Your task to perform on an android device: turn off wifi Image 0: 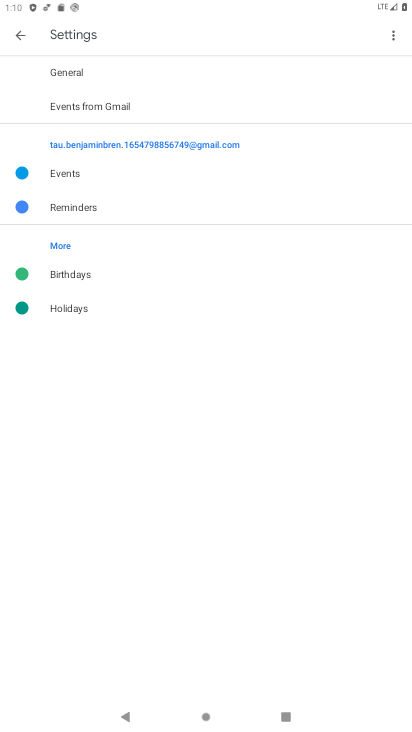
Step 0: press home button
Your task to perform on an android device: turn off wifi Image 1: 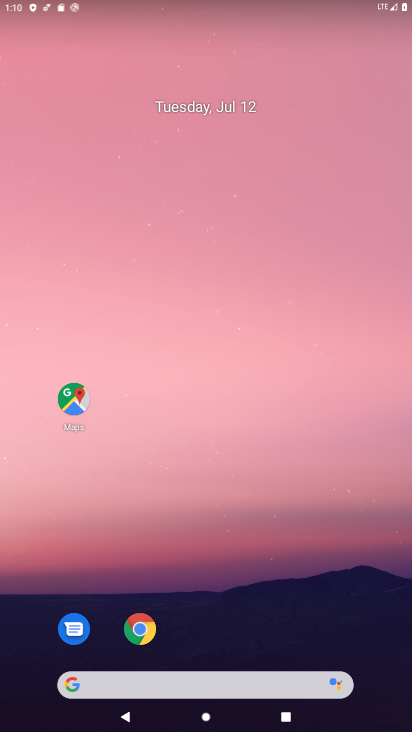
Step 1: drag from (214, 636) to (242, 143)
Your task to perform on an android device: turn off wifi Image 2: 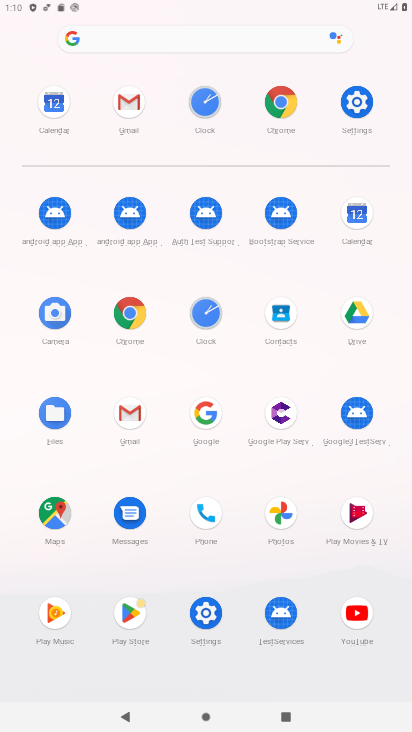
Step 2: click (354, 117)
Your task to perform on an android device: turn off wifi Image 3: 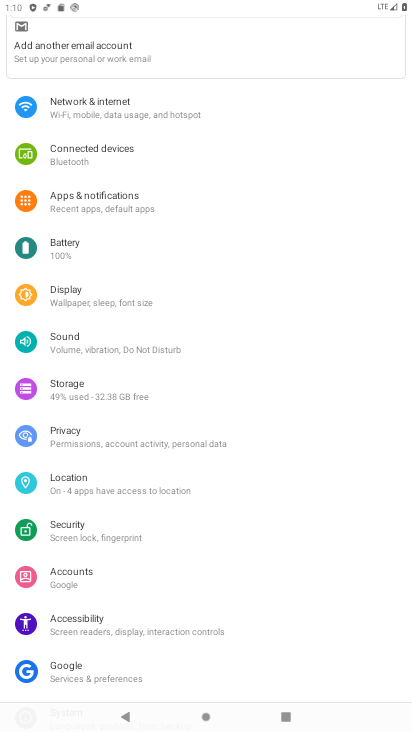
Step 3: click (178, 114)
Your task to perform on an android device: turn off wifi Image 4: 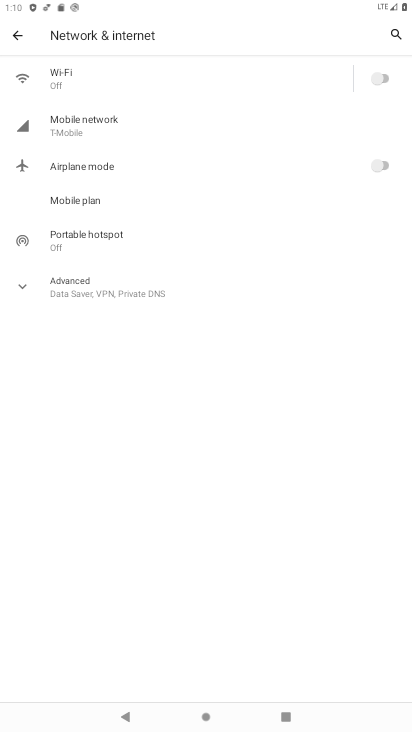
Step 4: task complete